Your task to perform on an android device: Open accessibility settings Image 0: 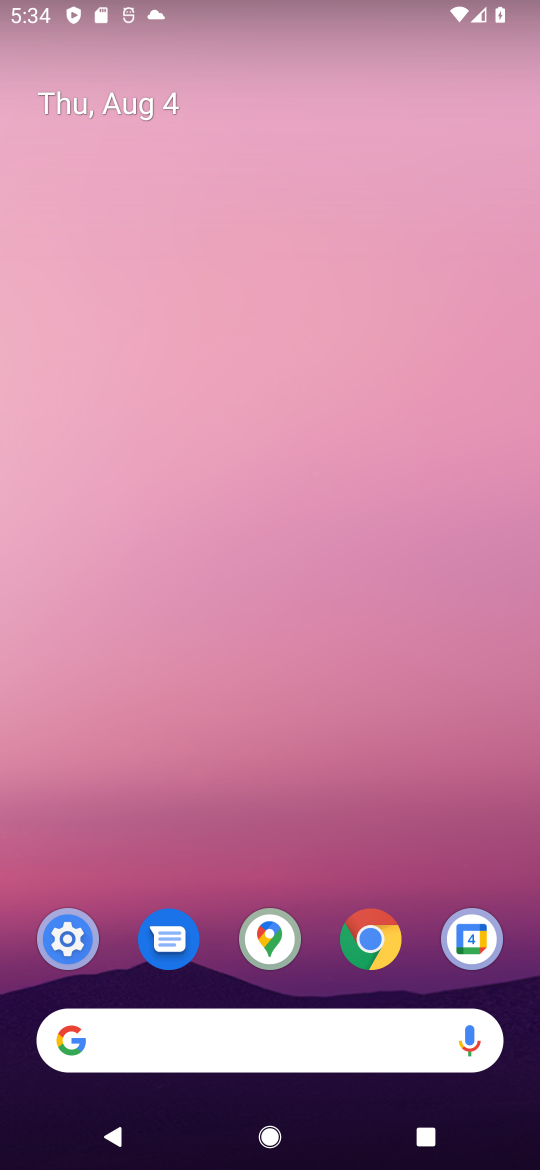
Step 0: drag from (212, 1010) to (428, 11)
Your task to perform on an android device: Open accessibility settings Image 1: 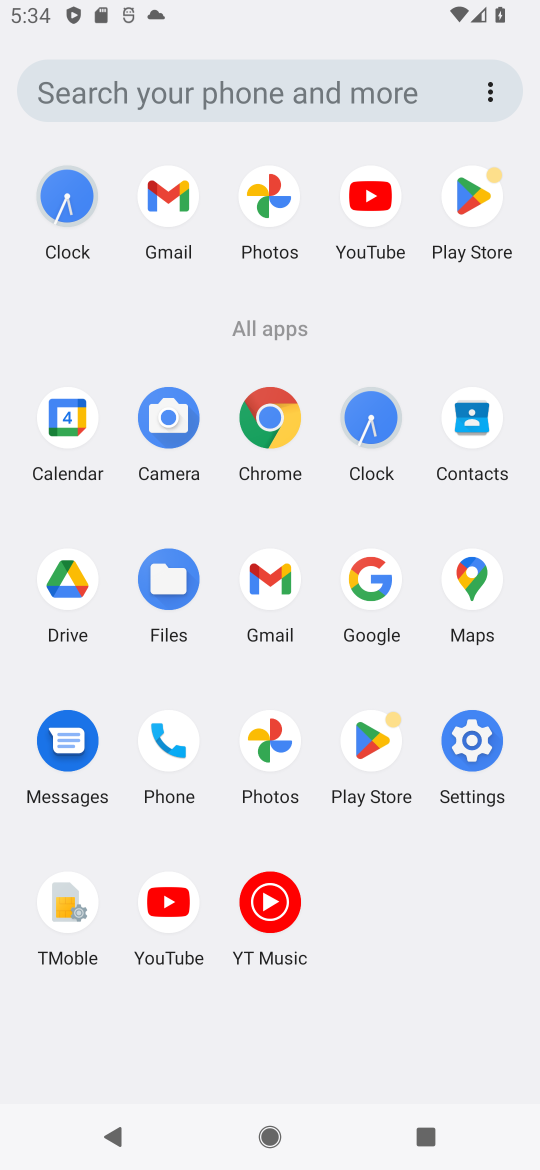
Step 1: click (471, 737)
Your task to perform on an android device: Open accessibility settings Image 2: 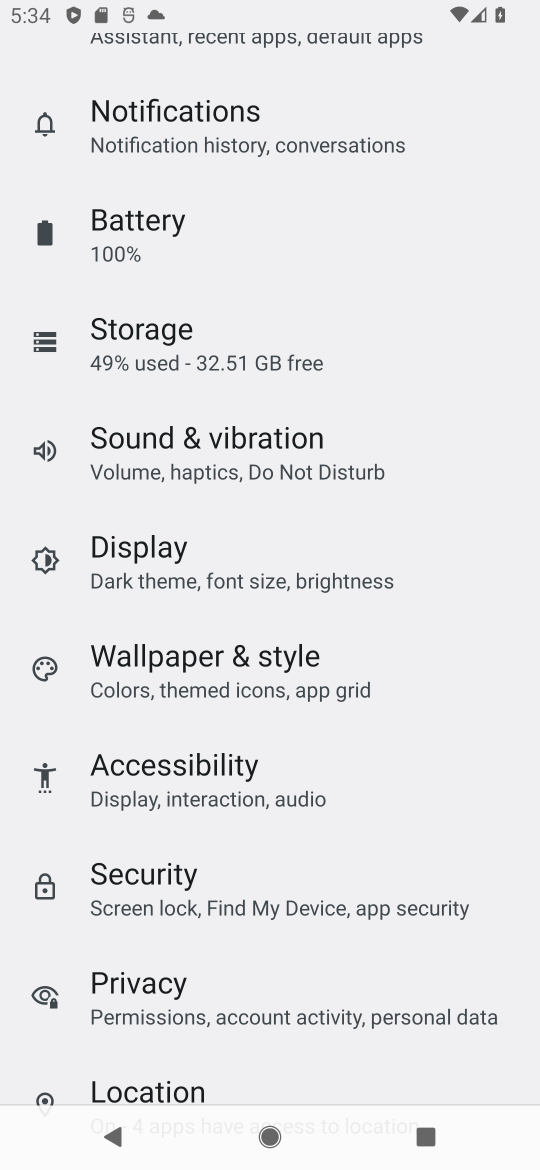
Step 2: click (145, 783)
Your task to perform on an android device: Open accessibility settings Image 3: 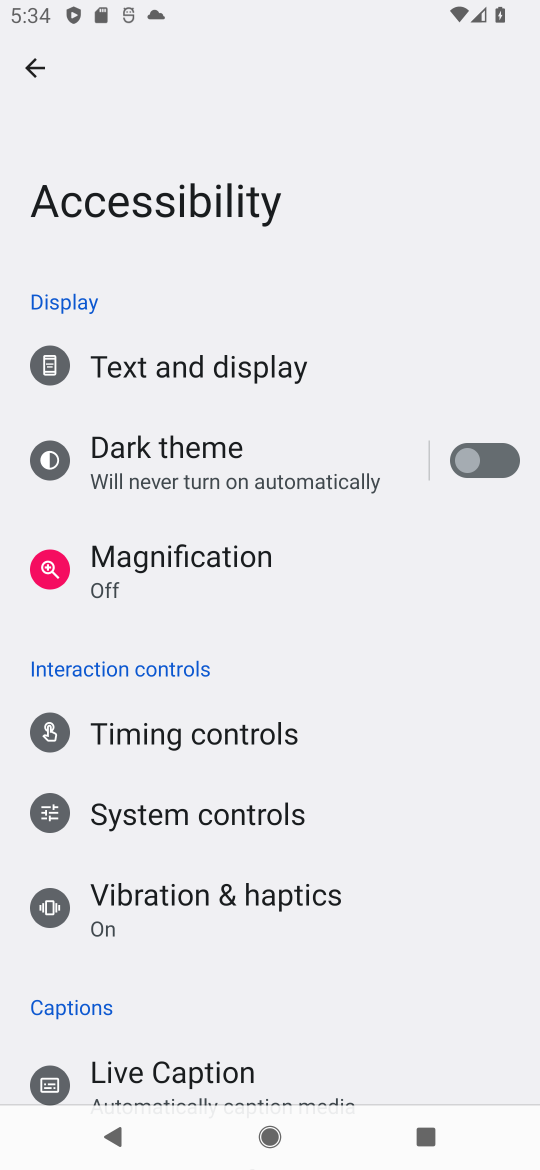
Step 3: task complete